Your task to perform on an android device: change text size in settings app Image 0: 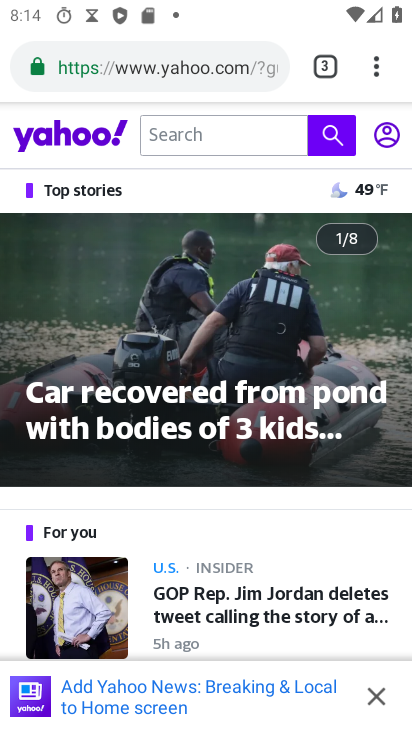
Step 0: press home button
Your task to perform on an android device: change text size in settings app Image 1: 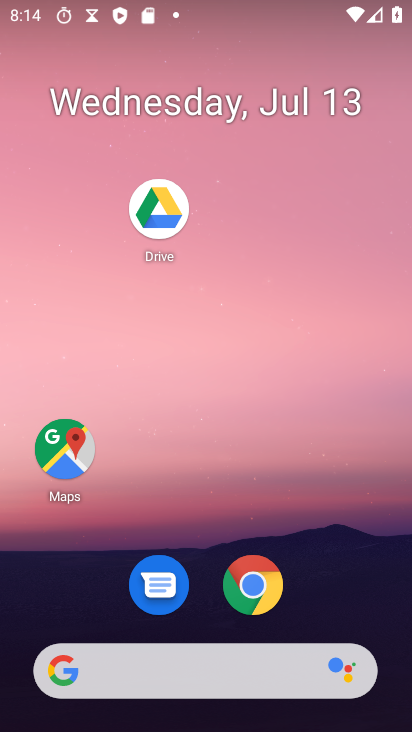
Step 1: drag from (204, 631) to (291, 163)
Your task to perform on an android device: change text size in settings app Image 2: 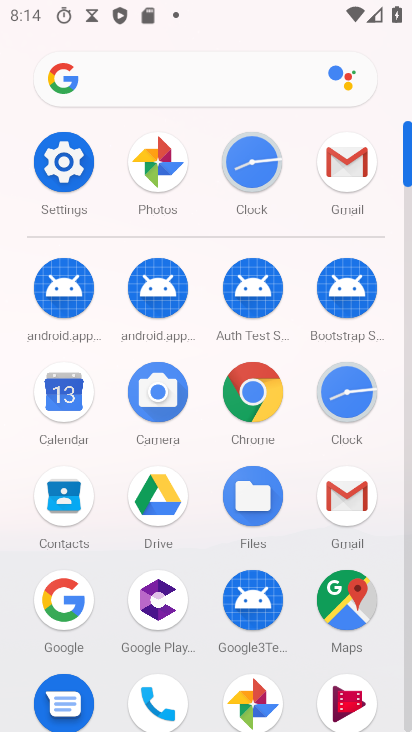
Step 2: click (71, 146)
Your task to perform on an android device: change text size in settings app Image 3: 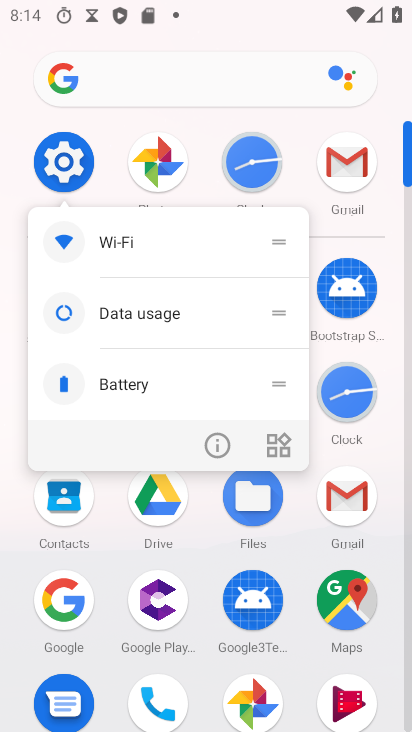
Step 3: click (67, 177)
Your task to perform on an android device: change text size in settings app Image 4: 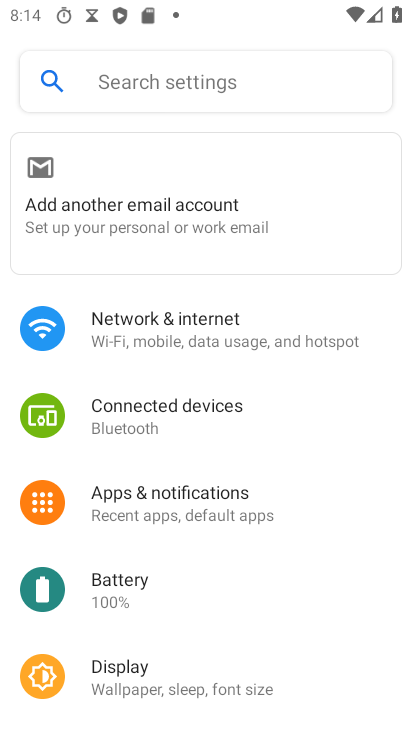
Step 4: drag from (257, 594) to (276, 264)
Your task to perform on an android device: change text size in settings app Image 5: 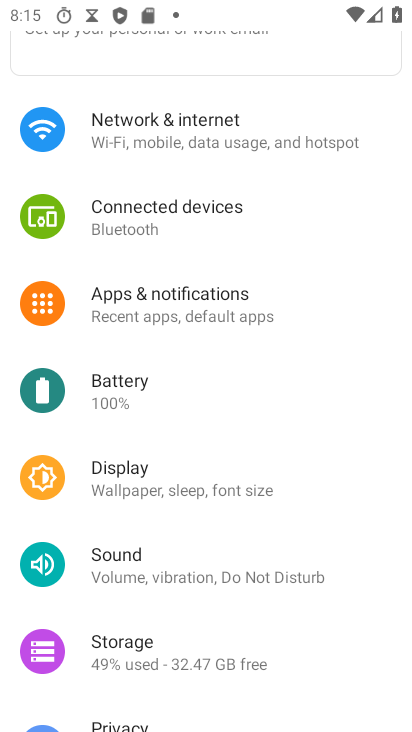
Step 5: click (195, 494)
Your task to perform on an android device: change text size in settings app Image 6: 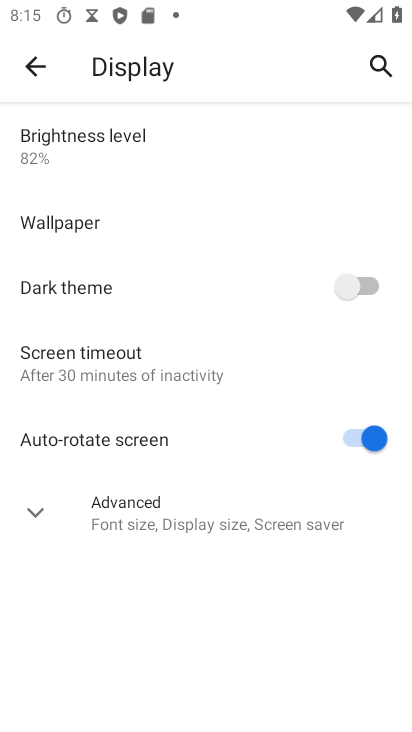
Step 6: click (173, 511)
Your task to perform on an android device: change text size in settings app Image 7: 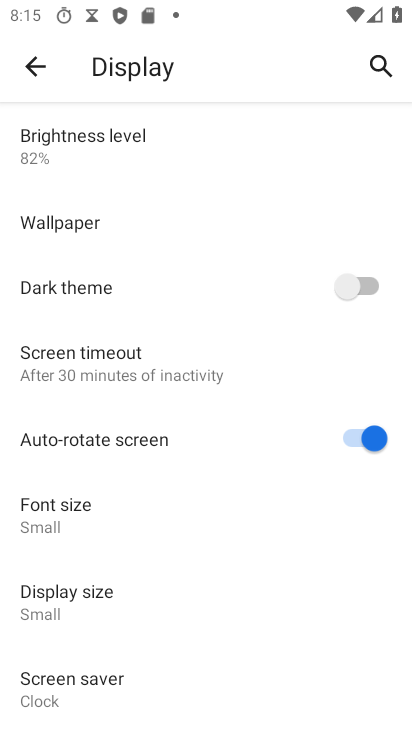
Step 7: drag from (259, 620) to (287, 295)
Your task to perform on an android device: change text size in settings app Image 8: 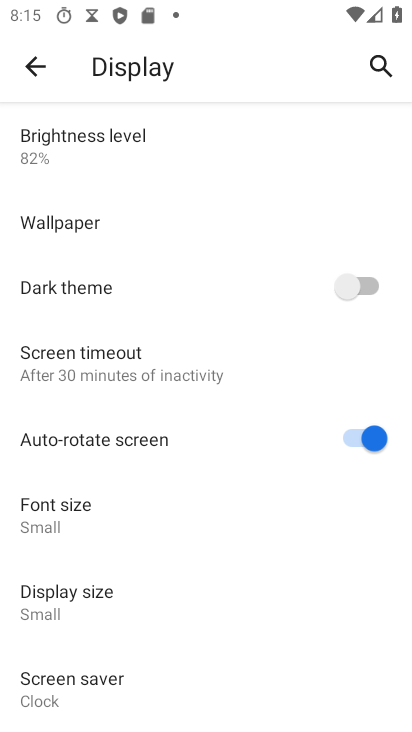
Step 8: click (78, 509)
Your task to perform on an android device: change text size in settings app Image 9: 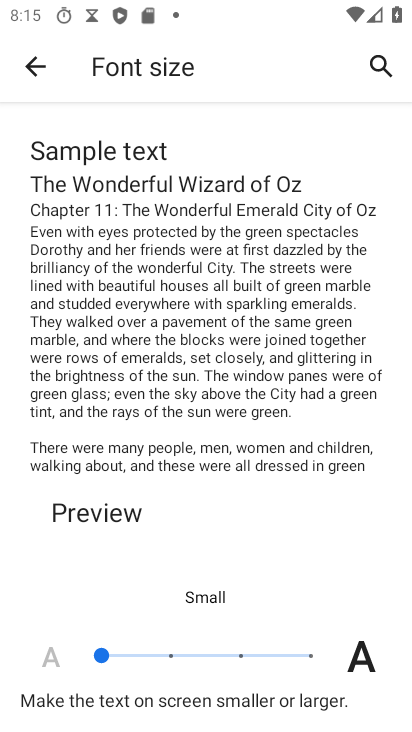
Step 9: click (172, 658)
Your task to perform on an android device: change text size in settings app Image 10: 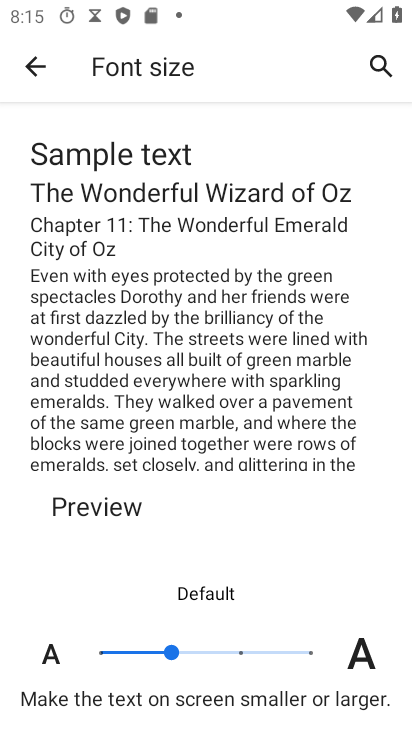
Step 10: task complete